Your task to perform on an android device: turn off wifi Image 0: 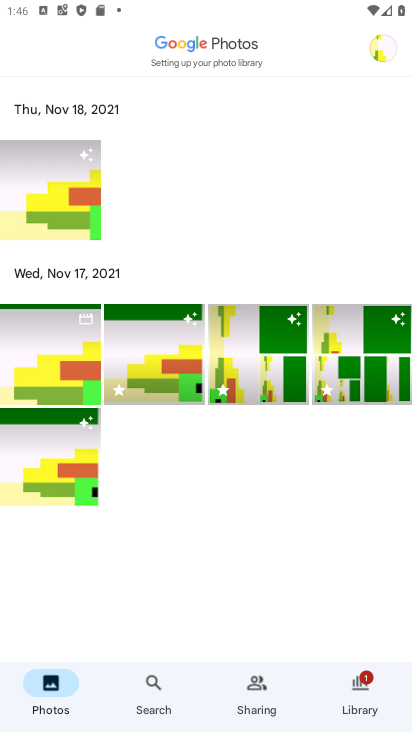
Step 0: press home button
Your task to perform on an android device: turn off wifi Image 1: 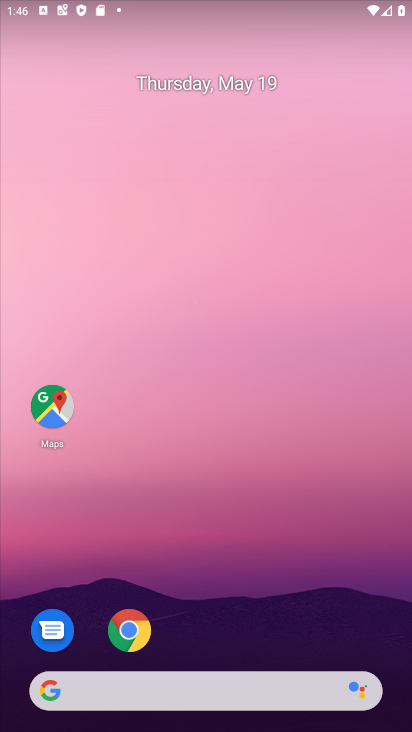
Step 1: drag from (382, 646) to (332, 101)
Your task to perform on an android device: turn off wifi Image 2: 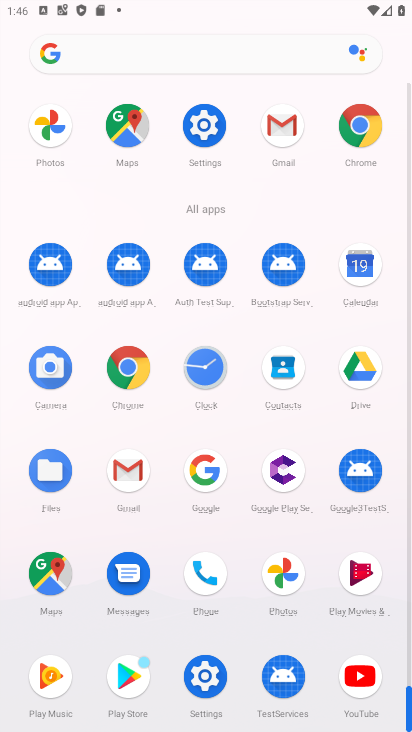
Step 2: click (202, 674)
Your task to perform on an android device: turn off wifi Image 3: 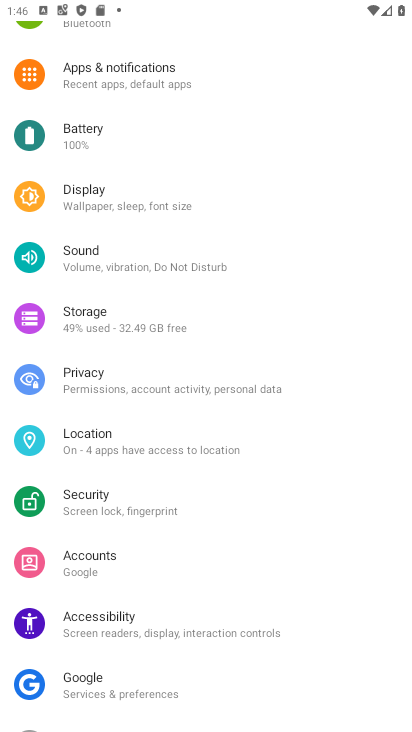
Step 3: drag from (266, 176) to (341, 639)
Your task to perform on an android device: turn off wifi Image 4: 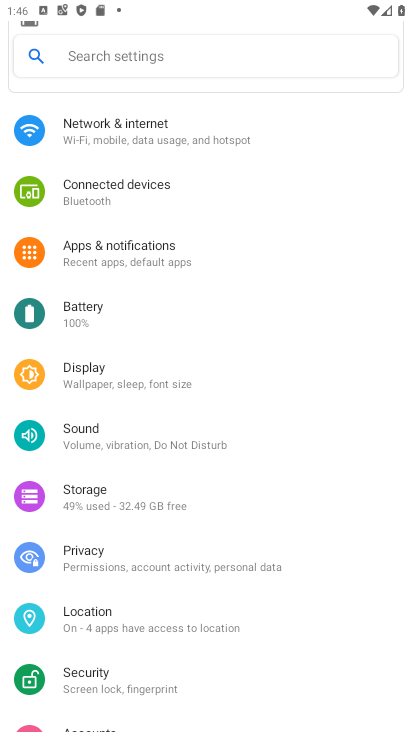
Step 4: click (106, 132)
Your task to perform on an android device: turn off wifi Image 5: 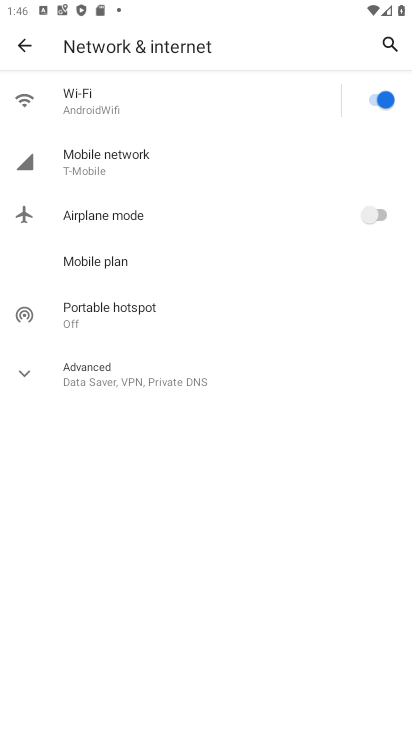
Step 5: click (373, 95)
Your task to perform on an android device: turn off wifi Image 6: 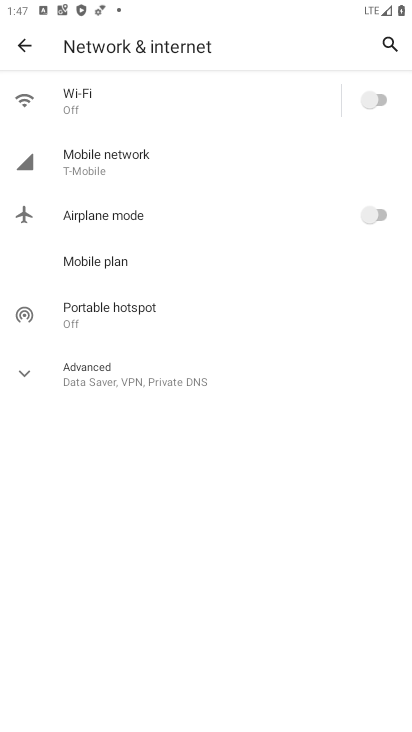
Step 6: task complete